Your task to perform on an android device: Go to sound settings Image 0: 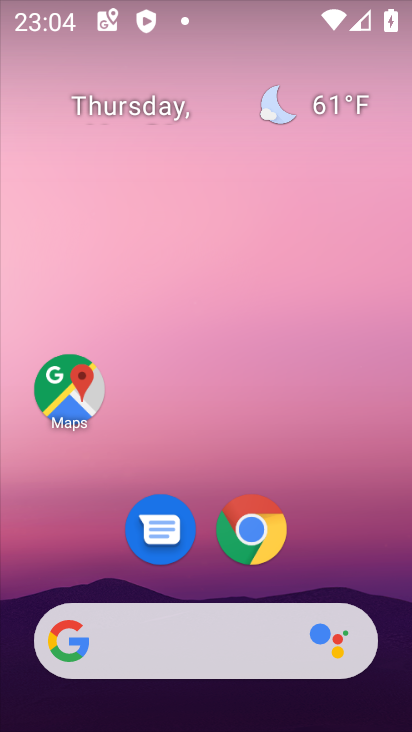
Step 0: drag from (338, 544) to (298, 35)
Your task to perform on an android device: Go to sound settings Image 1: 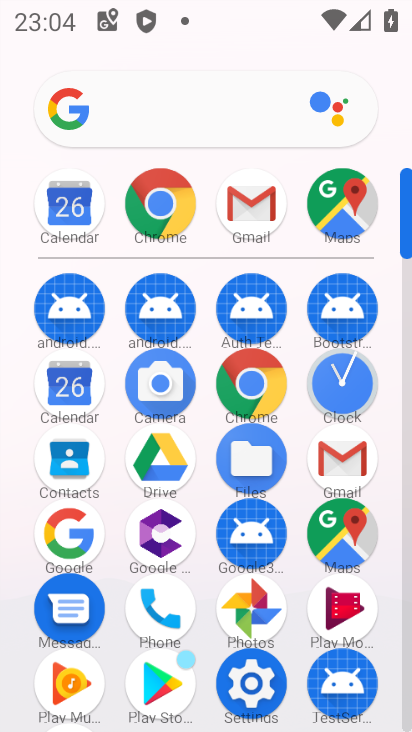
Step 1: click (267, 703)
Your task to perform on an android device: Go to sound settings Image 2: 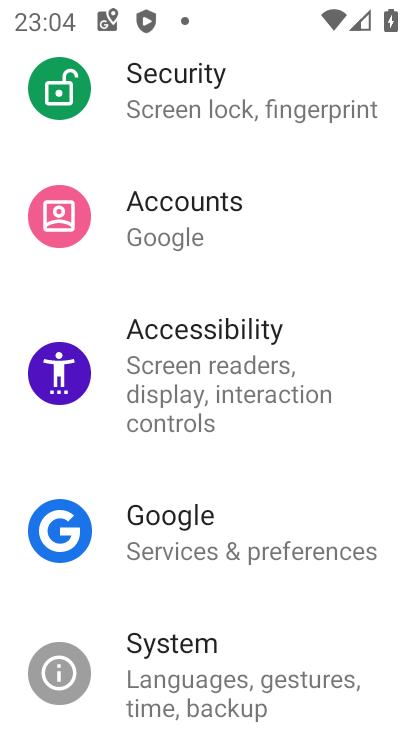
Step 2: drag from (257, 425) to (295, 573)
Your task to perform on an android device: Go to sound settings Image 3: 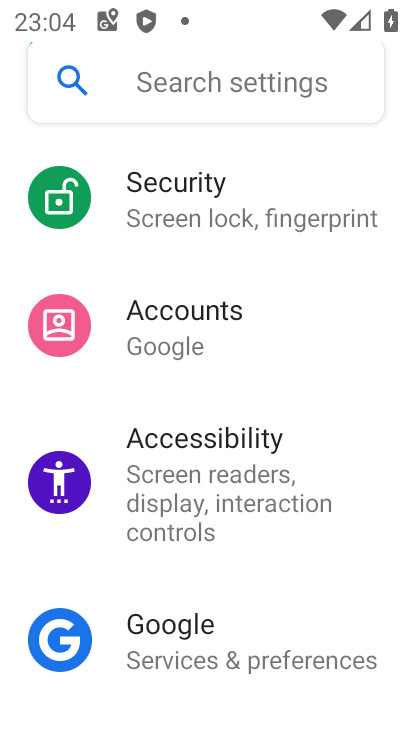
Step 3: click (267, 330)
Your task to perform on an android device: Go to sound settings Image 4: 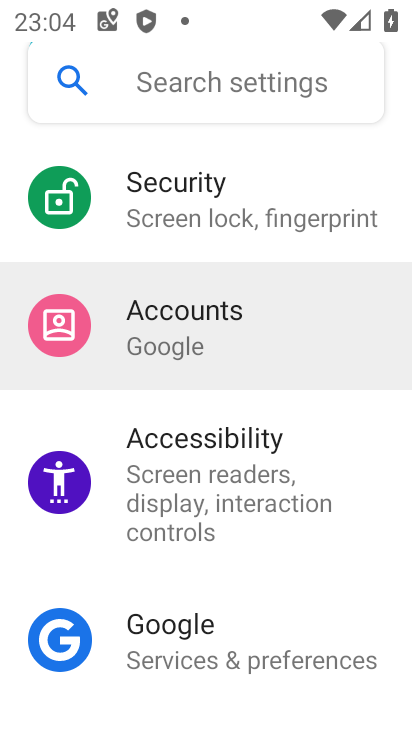
Step 4: click (272, 350)
Your task to perform on an android device: Go to sound settings Image 5: 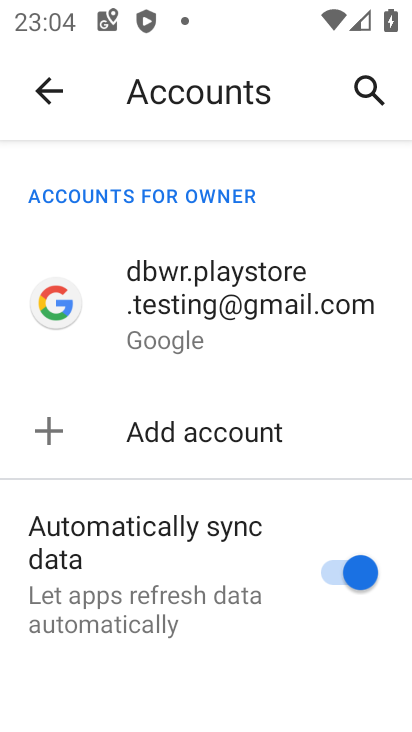
Step 5: click (45, 117)
Your task to perform on an android device: Go to sound settings Image 6: 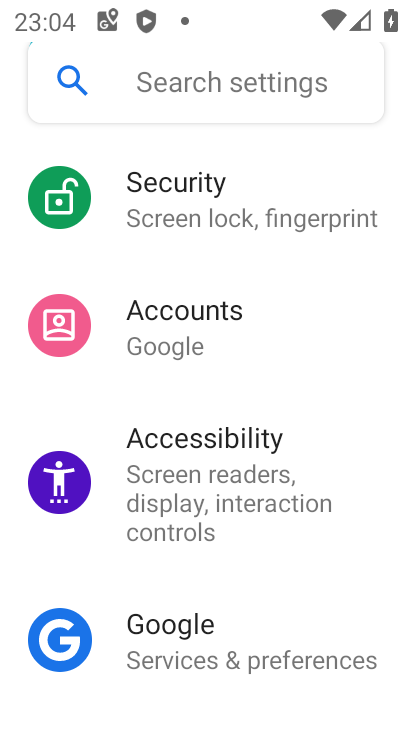
Step 6: drag from (197, 611) to (198, 434)
Your task to perform on an android device: Go to sound settings Image 7: 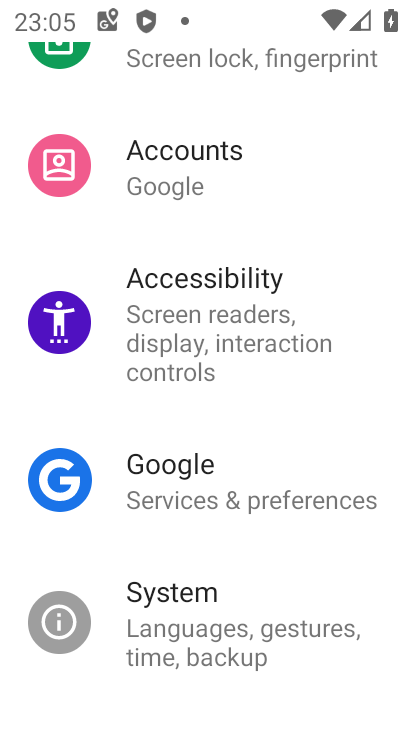
Step 7: drag from (241, 209) to (317, 449)
Your task to perform on an android device: Go to sound settings Image 8: 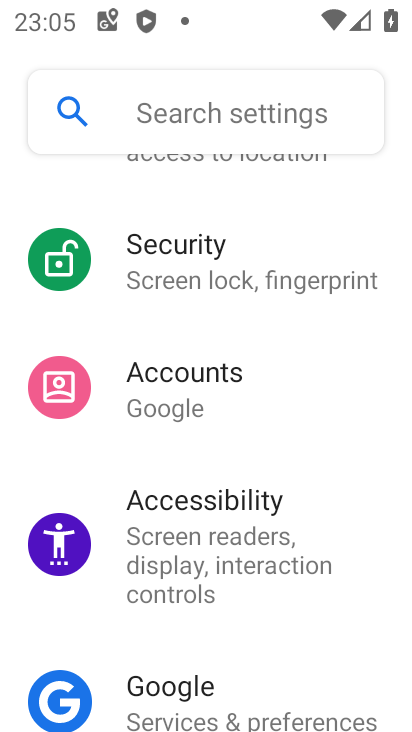
Step 8: drag from (298, 227) to (344, 469)
Your task to perform on an android device: Go to sound settings Image 9: 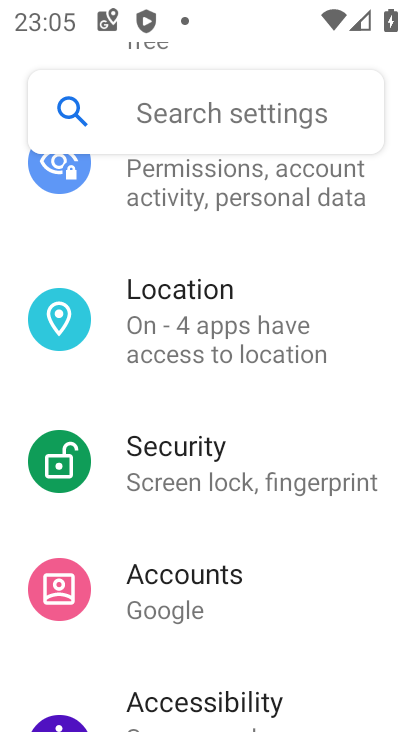
Step 9: drag from (250, 255) to (264, 372)
Your task to perform on an android device: Go to sound settings Image 10: 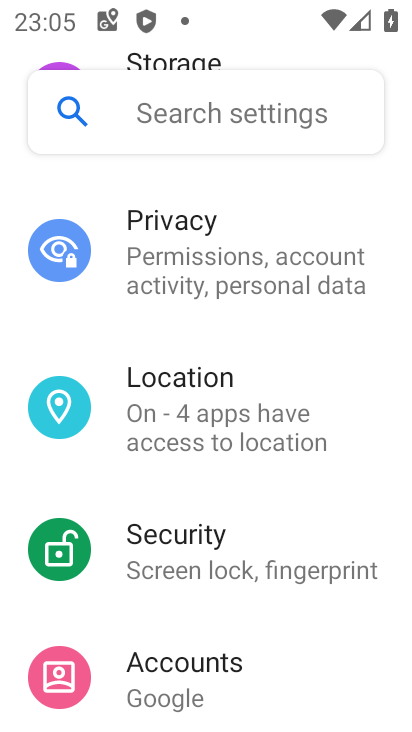
Step 10: drag from (264, 207) to (308, 455)
Your task to perform on an android device: Go to sound settings Image 11: 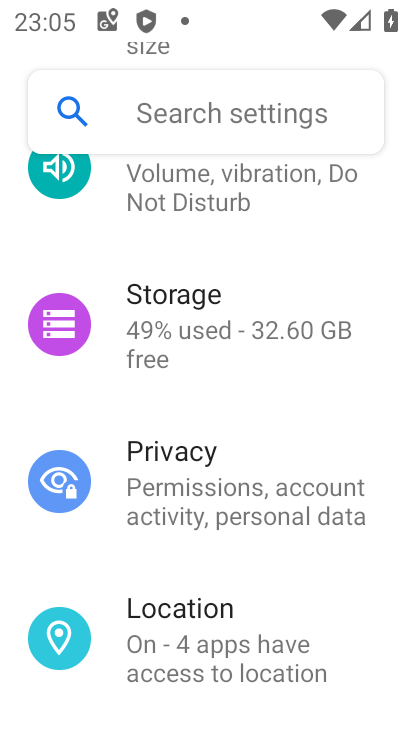
Step 11: click (231, 201)
Your task to perform on an android device: Go to sound settings Image 12: 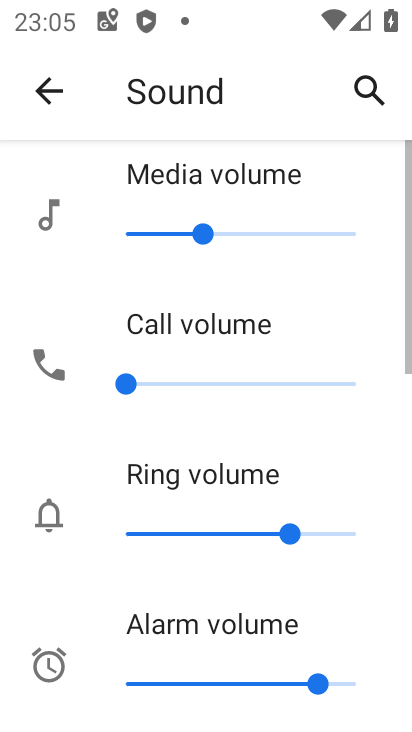
Step 12: task complete